Your task to perform on an android device: Go to Wikipedia Image 0: 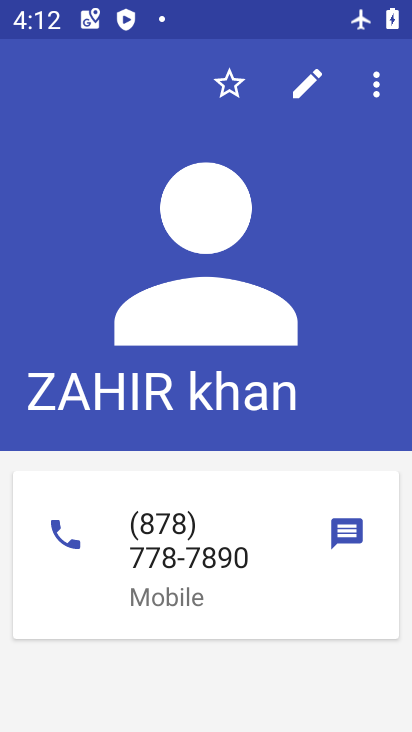
Step 0: press home button
Your task to perform on an android device: Go to Wikipedia Image 1: 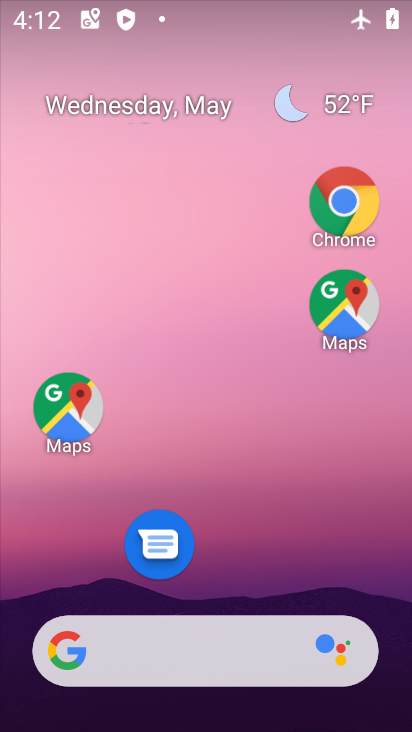
Step 1: drag from (268, 546) to (233, 181)
Your task to perform on an android device: Go to Wikipedia Image 2: 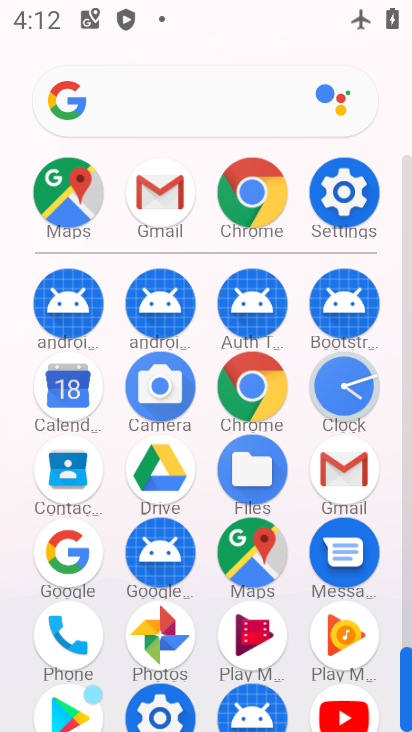
Step 2: click (229, 212)
Your task to perform on an android device: Go to Wikipedia Image 3: 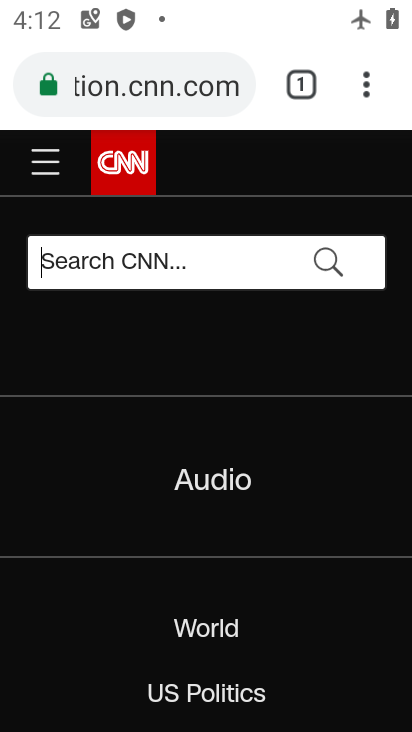
Step 3: press back button
Your task to perform on an android device: Go to Wikipedia Image 4: 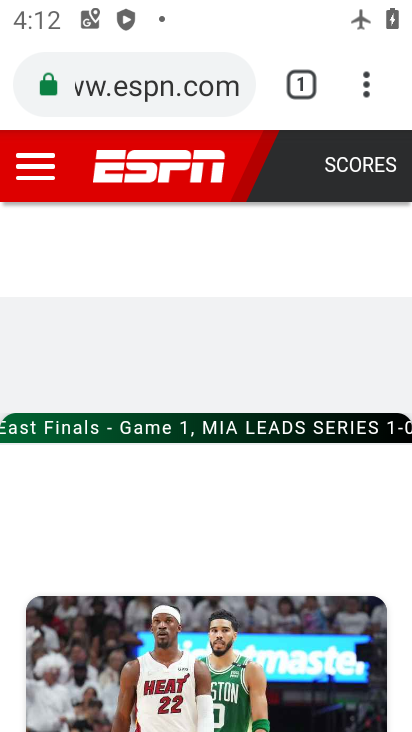
Step 4: press back button
Your task to perform on an android device: Go to Wikipedia Image 5: 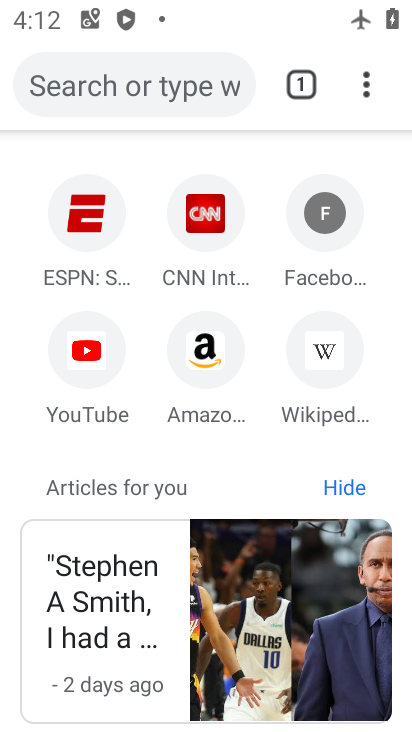
Step 5: click (339, 375)
Your task to perform on an android device: Go to Wikipedia Image 6: 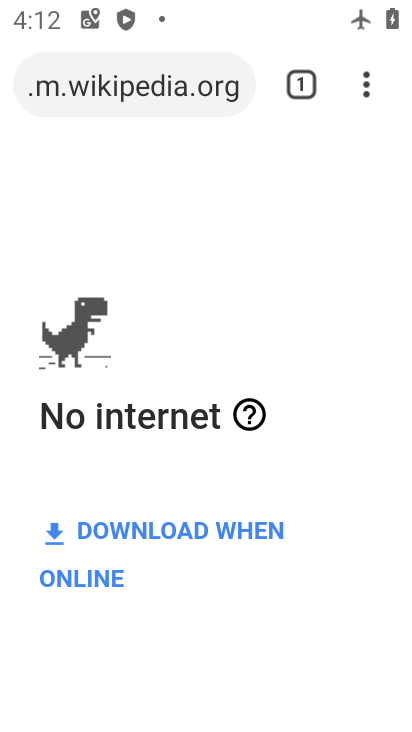
Step 6: task complete